Your task to perform on an android device: Open location settings Image 0: 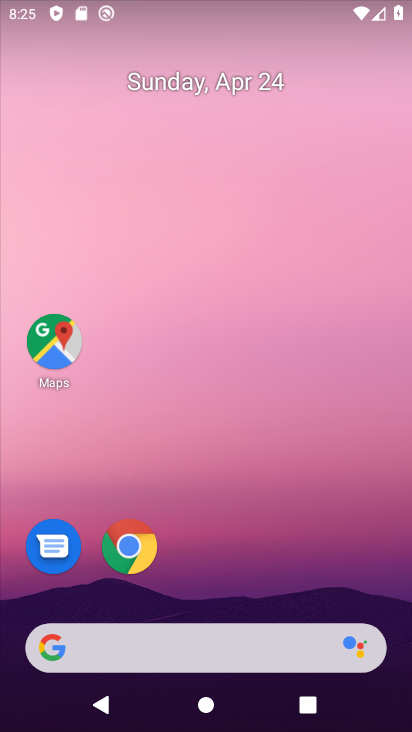
Step 0: drag from (245, 596) to (275, 44)
Your task to perform on an android device: Open location settings Image 1: 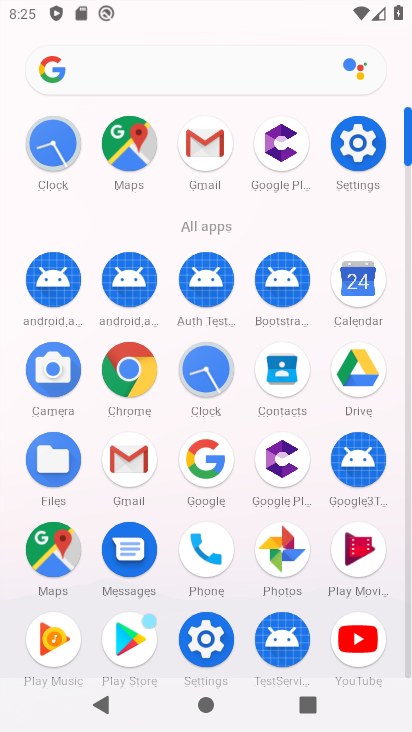
Step 1: click (348, 148)
Your task to perform on an android device: Open location settings Image 2: 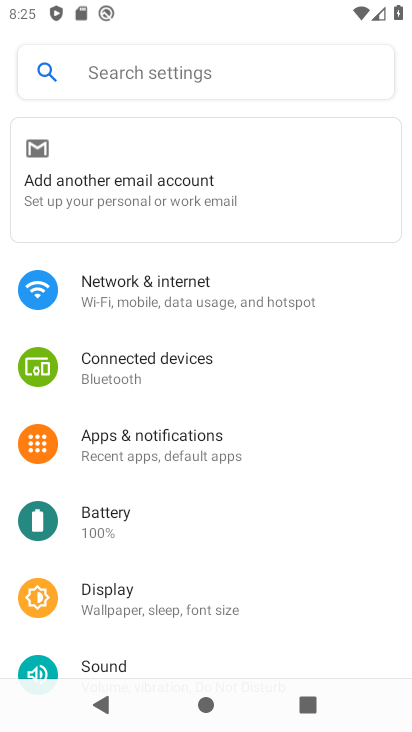
Step 2: drag from (212, 590) to (233, 229)
Your task to perform on an android device: Open location settings Image 3: 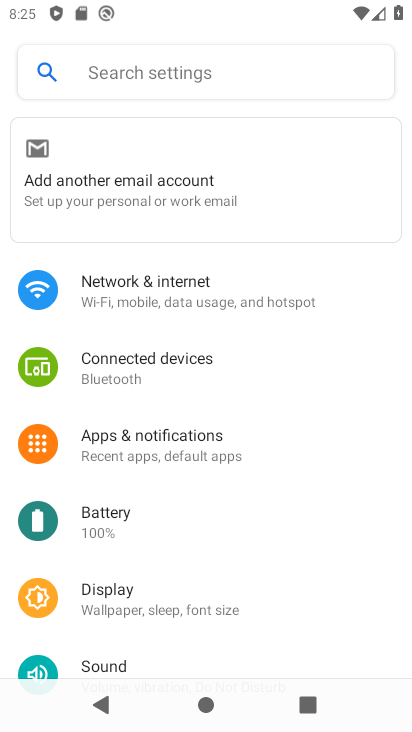
Step 3: drag from (235, 568) to (280, 185)
Your task to perform on an android device: Open location settings Image 4: 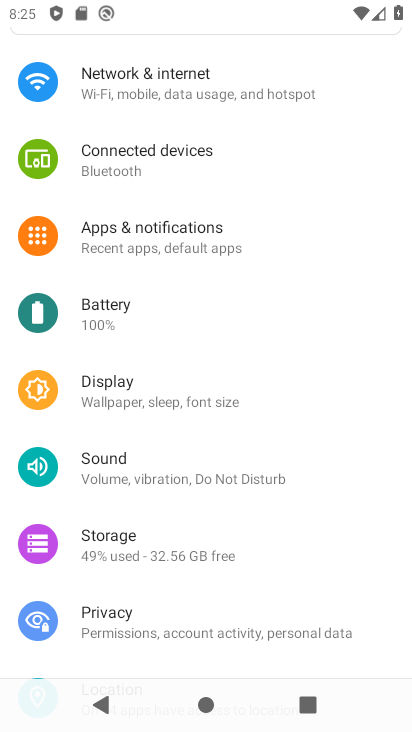
Step 4: drag from (223, 574) to (261, 180)
Your task to perform on an android device: Open location settings Image 5: 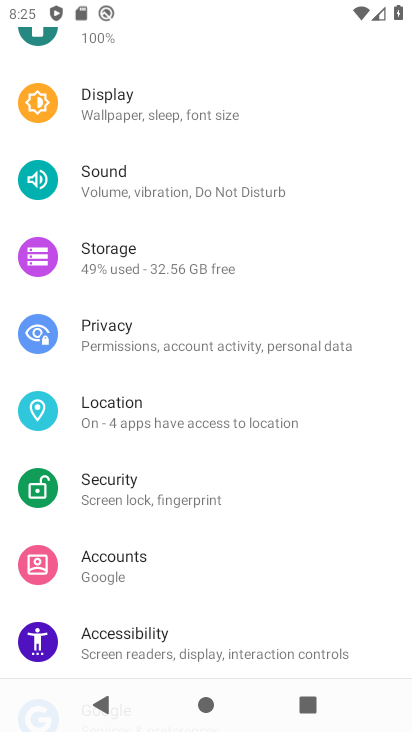
Step 5: click (248, 431)
Your task to perform on an android device: Open location settings Image 6: 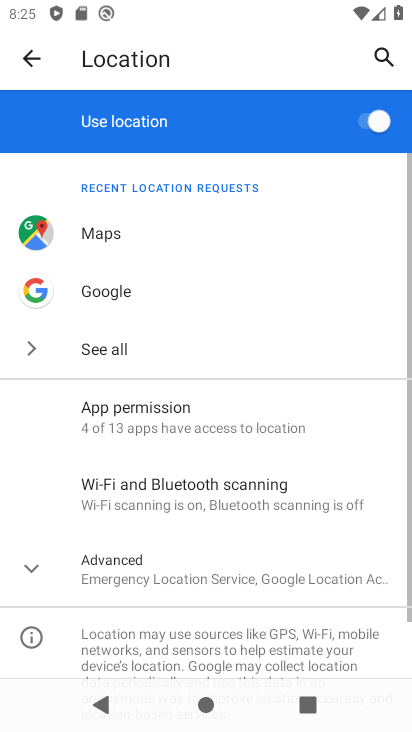
Step 6: task complete